Your task to perform on an android device: Open internet settings Image 0: 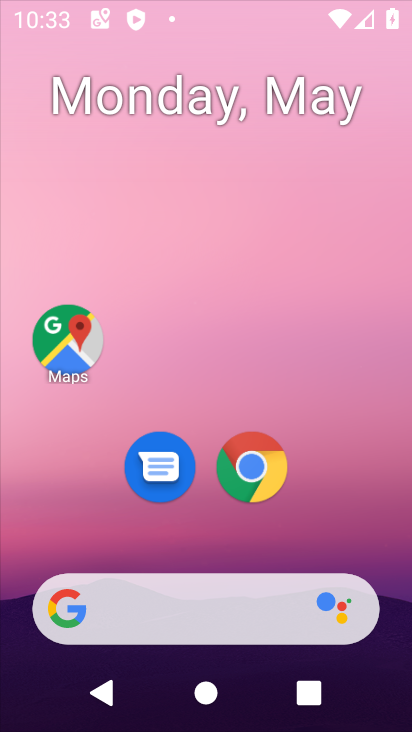
Step 0: click (71, 337)
Your task to perform on an android device: Open internet settings Image 1: 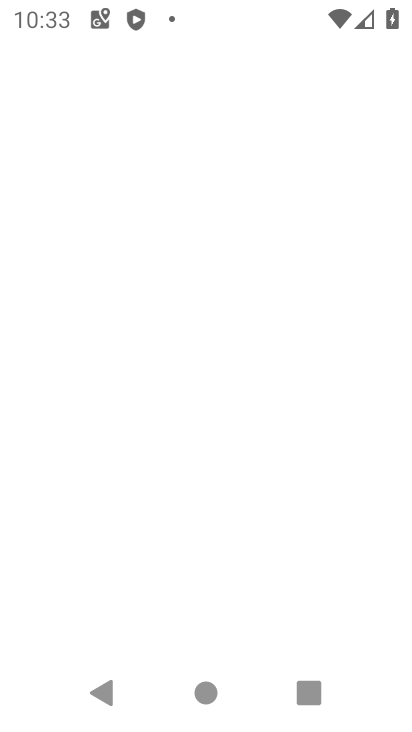
Step 1: press back button
Your task to perform on an android device: Open internet settings Image 2: 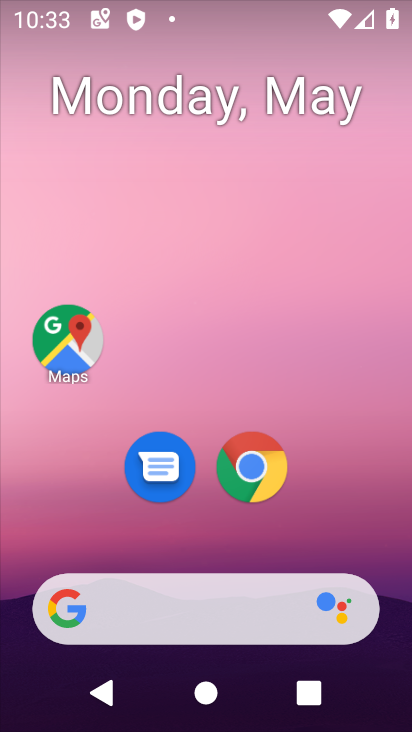
Step 2: click (86, 344)
Your task to perform on an android device: Open internet settings Image 3: 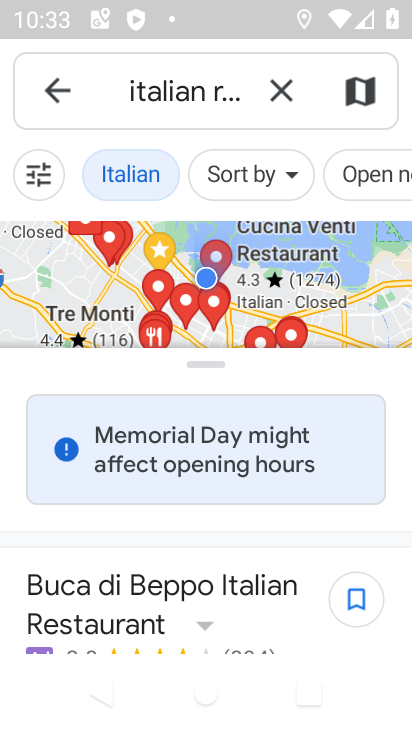
Step 3: press home button
Your task to perform on an android device: Open internet settings Image 4: 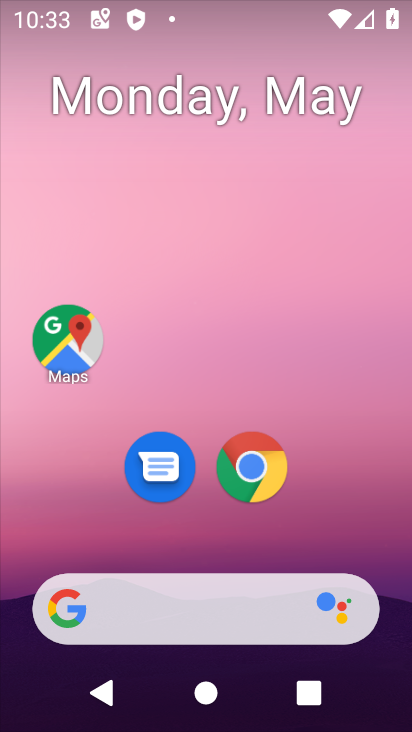
Step 4: drag from (382, 680) to (365, 117)
Your task to perform on an android device: Open internet settings Image 5: 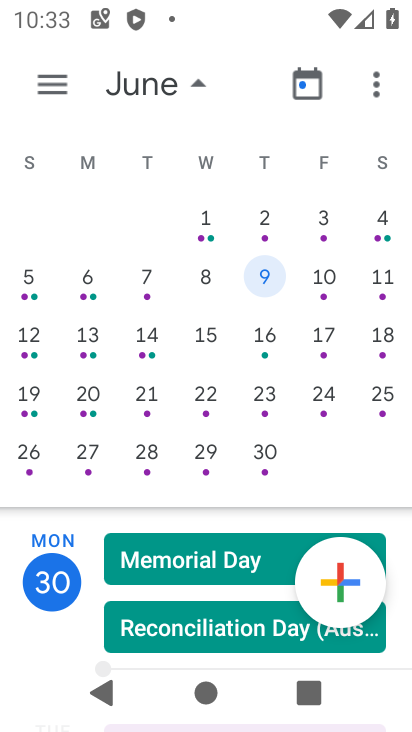
Step 5: drag from (399, 682) to (378, 175)
Your task to perform on an android device: Open internet settings Image 6: 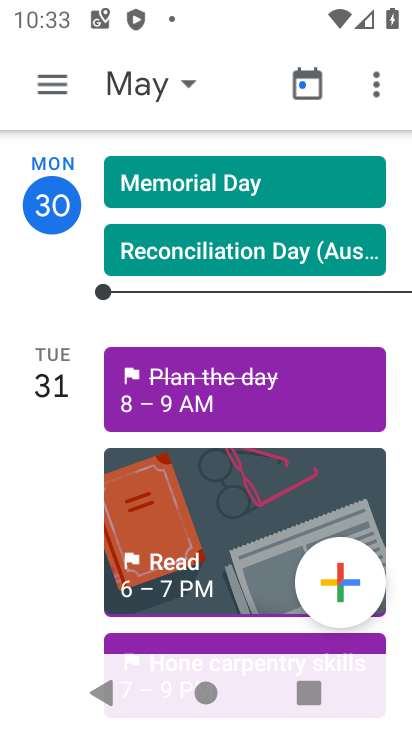
Step 6: press home button
Your task to perform on an android device: Open internet settings Image 7: 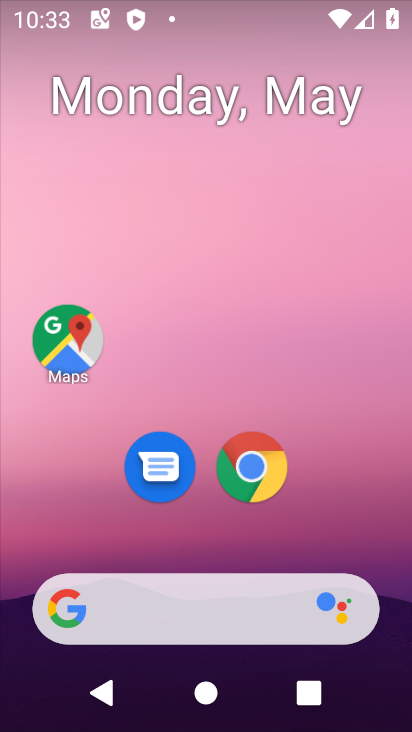
Step 7: drag from (394, 702) to (400, 141)
Your task to perform on an android device: Open internet settings Image 8: 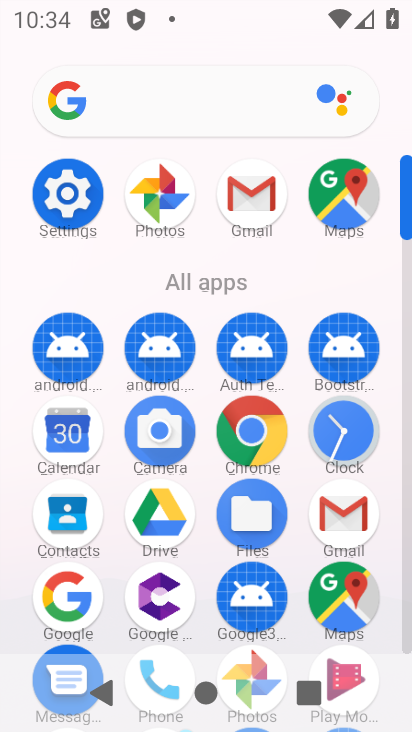
Step 8: click (64, 207)
Your task to perform on an android device: Open internet settings Image 9: 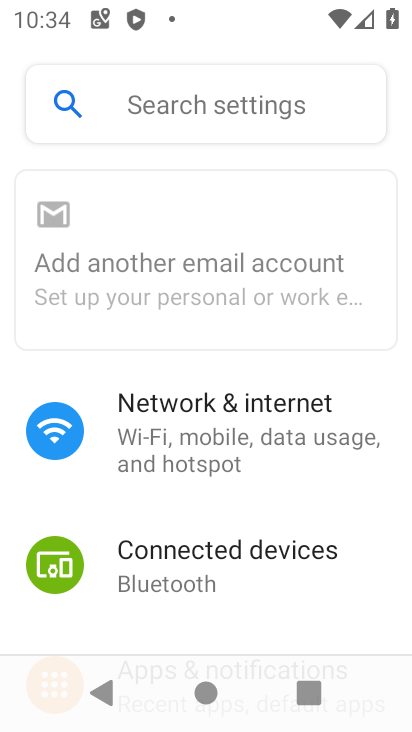
Step 9: click (192, 266)
Your task to perform on an android device: Open internet settings Image 10: 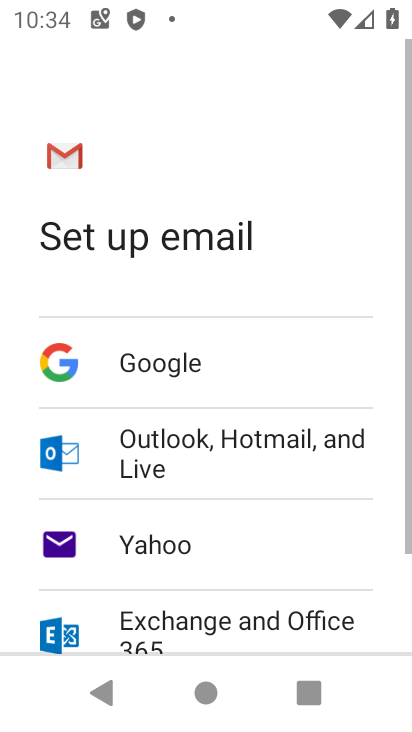
Step 10: press back button
Your task to perform on an android device: Open internet settings Image 11: 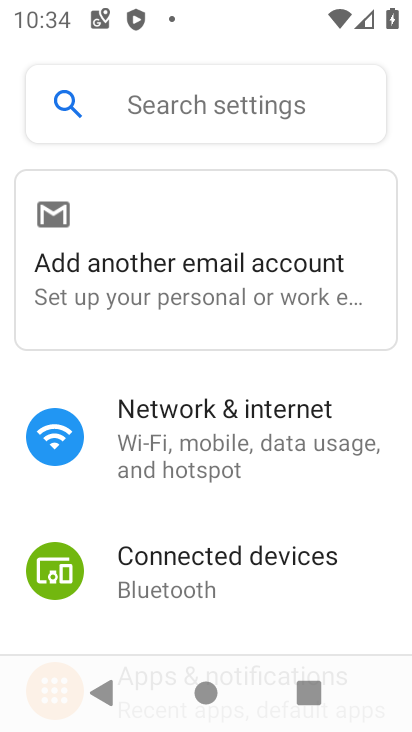
Step 11: click (192, 440)
Your task to perform on an android device: Open internet settings Image 12: 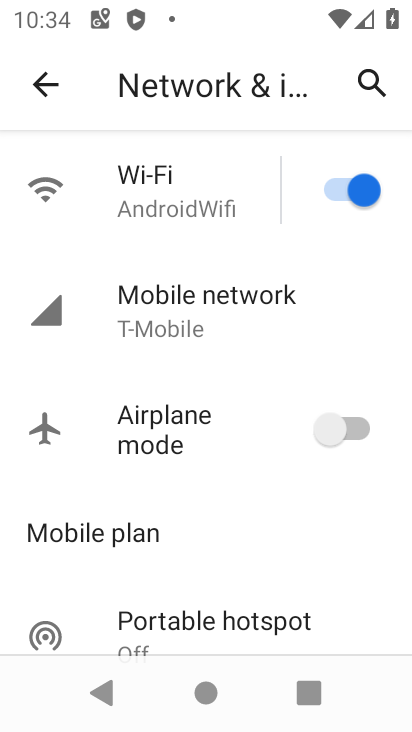
Step 12: drag from (241, 564) to (249, 213)
Your task to perform on an android device: Open internet settings Image 13: 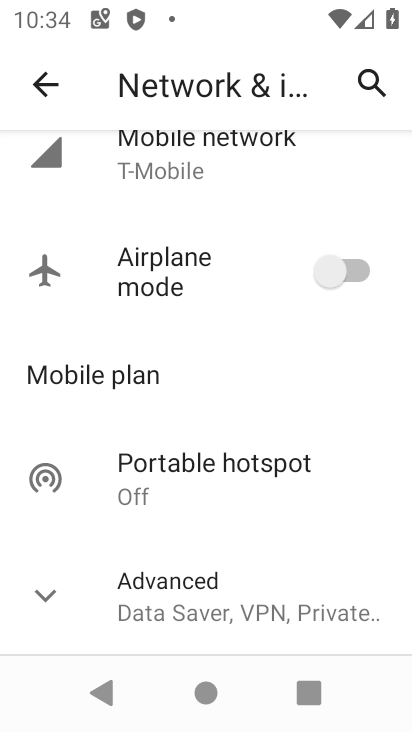
Step 13: click (252, 594)
Your task to perform on an android device: Open internet settings Image 14: 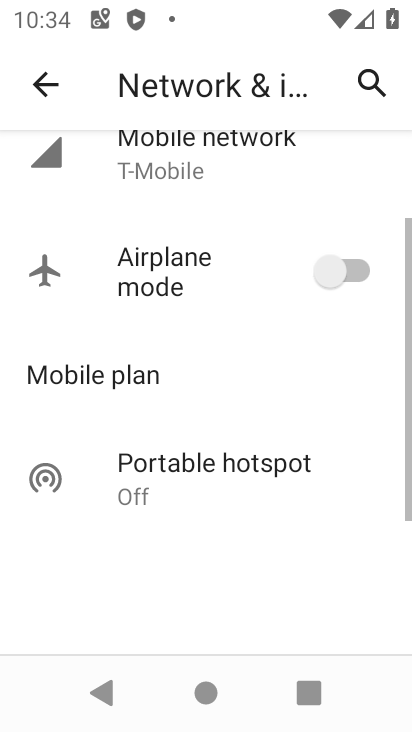
Step 14: click (176, 144)
Your task to perform on an android device: Open internet settings Image 15: 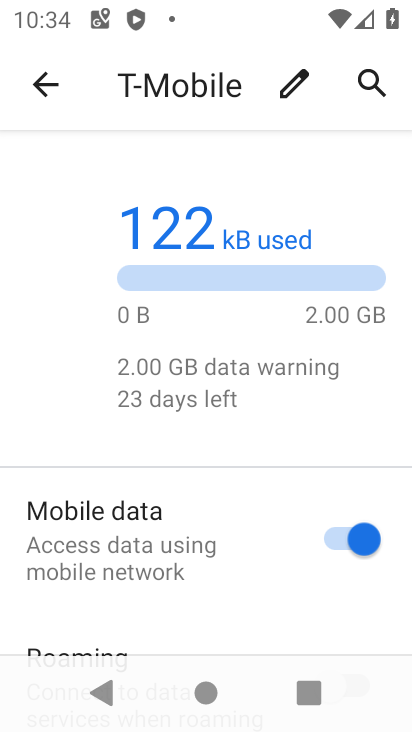
Step 15: task complete